Your task to perform on an android device: open the mobile data screen to see how much data has been used Image 0: 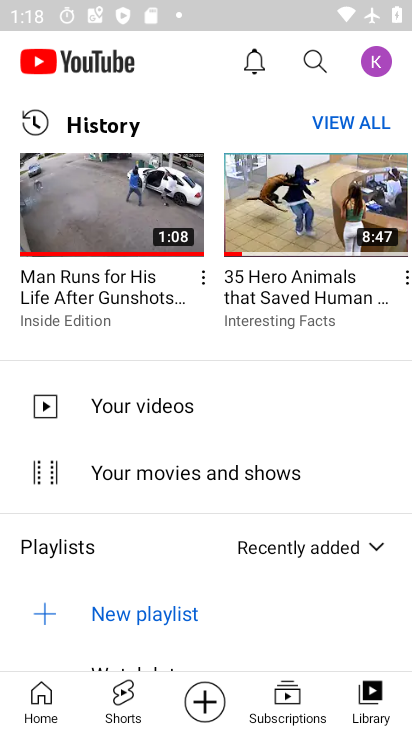
Step 0: press home button
Your task to perform on an android device: open the mobile data screen to see how much data has been used Image 1: 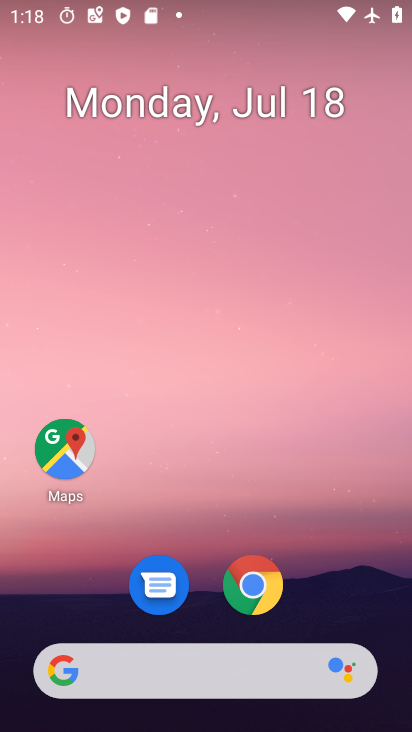
Step 1: drag from (222, 674) to (338, 39)
Your task to perform on an android device: open the mobile data screen to see how much data has been used Image 2: 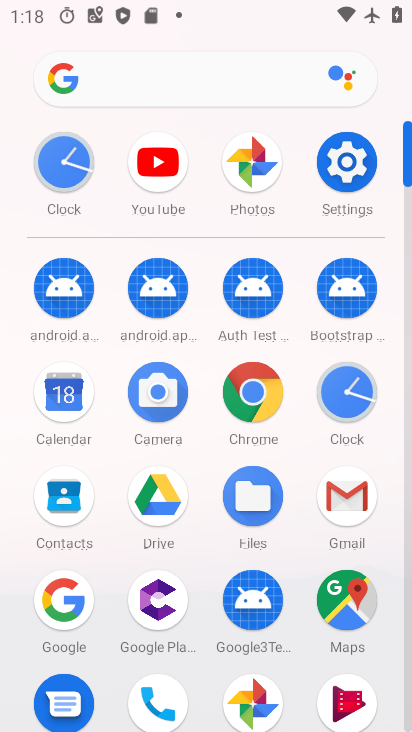
Step 2: click (335, 166)
Your task to perform on an android device: open the mobile data screen to see how much data has been used Image 3: 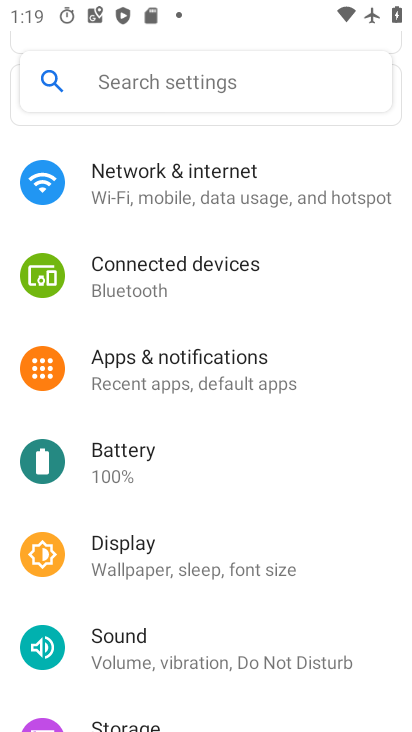
Step 3: click (196, 187)
Your task to perform on an android device: open the mobile data screen to see how much data has been used Image 4: 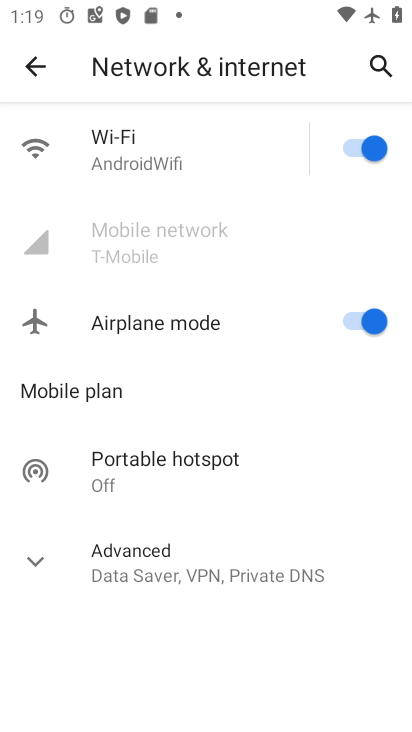
Step 4: task complete